Your task to perform on an android device: Open Google Chrome and click the shortcut for Amazon.com Image 0: 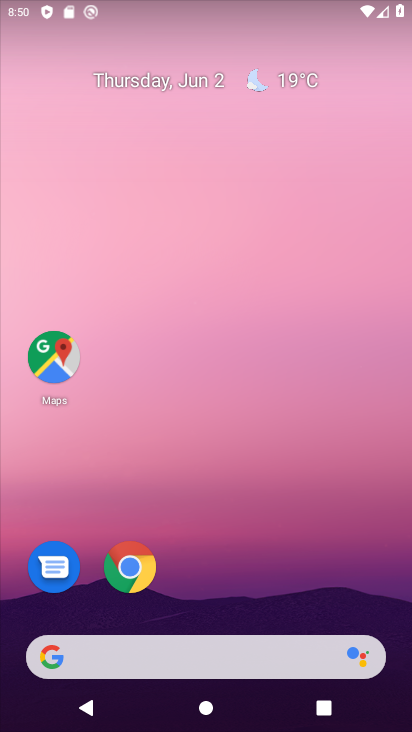
Step 0: click (128, 564)
Your task to perform on an android device: Open Google Chrome and click the shortcut for Amazon.com Image 1: 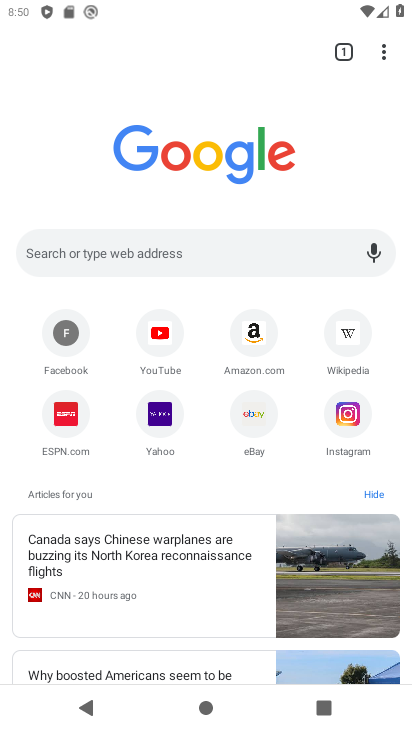
Step 1: click (257, 323)
Your task to perform on an android device: Open Google Chrome and click the shortcut for Amazon.com Image 2: 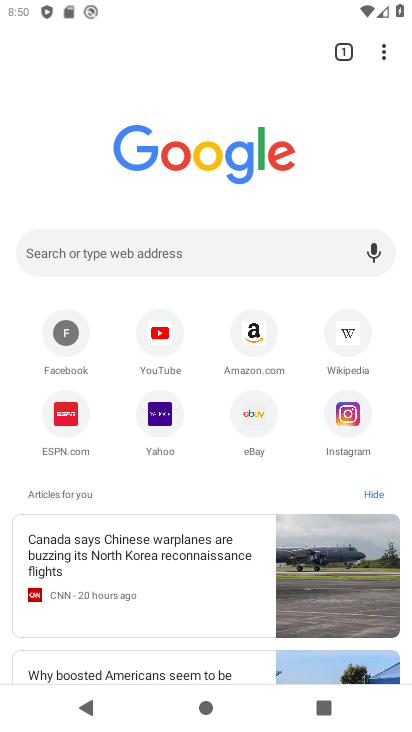
Step 2: click (257, 323)
Your task to perform on an android device: Open Google Chrome and click the shortcut for Amazon.com Image 3: 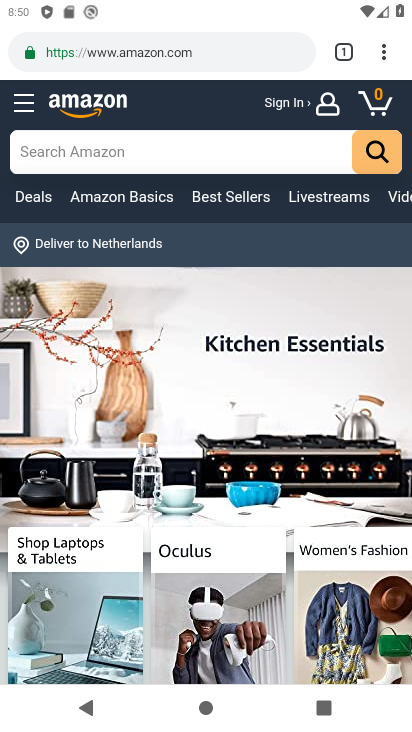
Step 3: task complete